Your task to perform on an android device: What's the weather? Image 0: 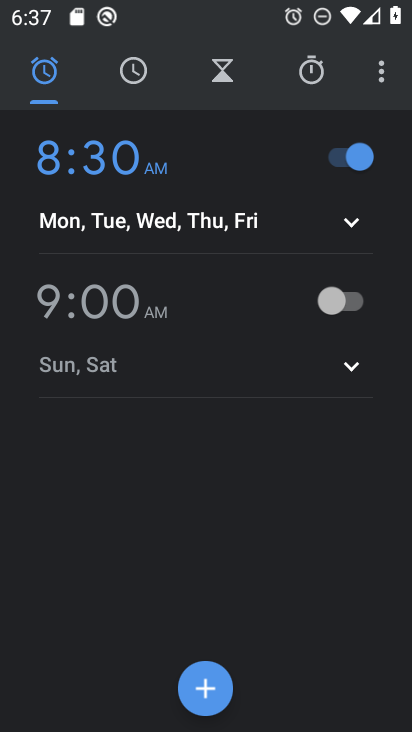
Step 0: press home button
Your task to perform on an android device: What's the weather? Image 1: 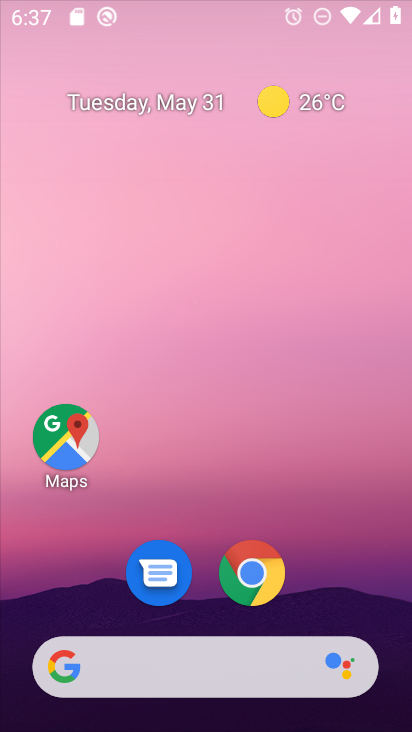
Step 1: drag from (392, 644) to (201, 41)
Your task to perform on an android device: What's the weather? Image 2: 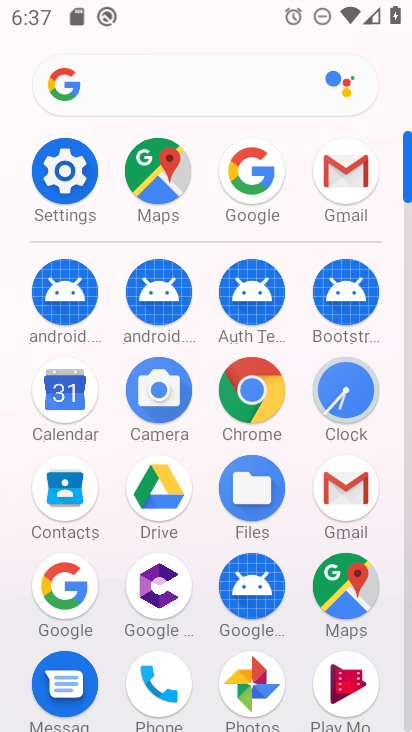
Step 2: click (50, 597)
Your task to perform on an android device: What's the weather? Image 3: 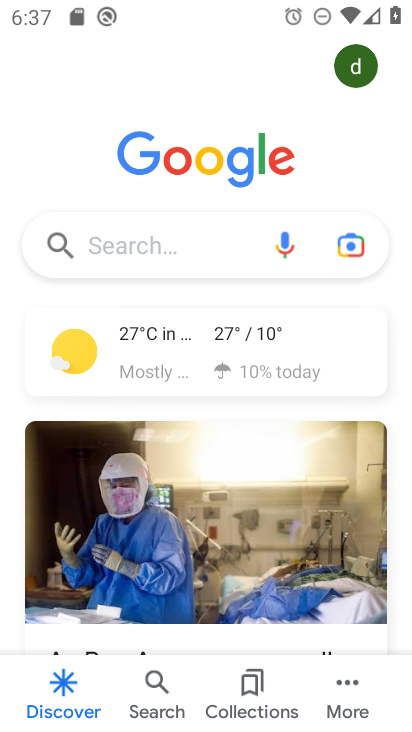
Step 3: click (147, 233)
Your task to perform on an android device: What's the weather? Image 4: 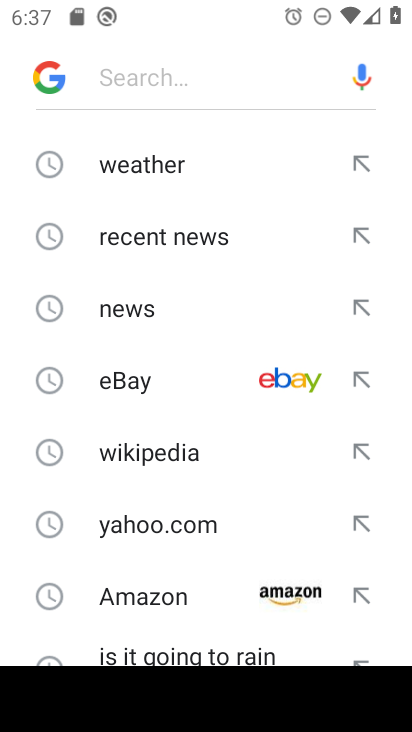
Step 4: click (153, 156)
Your task to perform on an android device: What's the weather? Image 5: 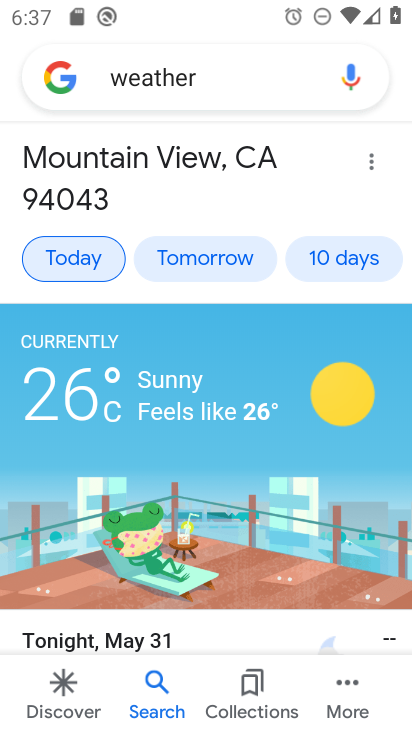
Step 5: task complete